Your task to perform on an android device: find which apps use the phone's location Image 0: 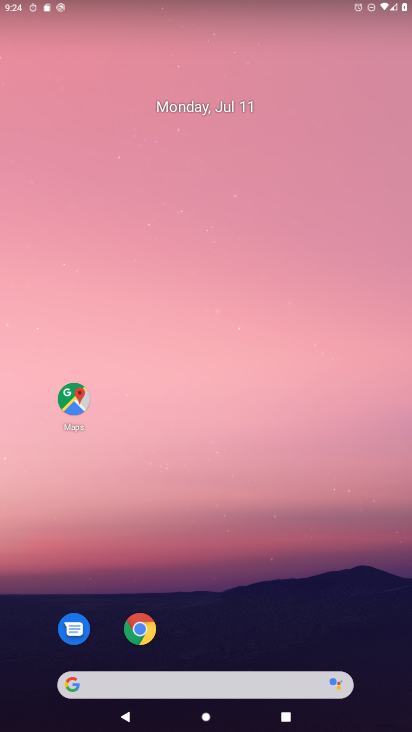
Step 0: drag from (213, 647) to (208, 189)
Your task to perform on an android device: find which apps use the phone's location Image 1: 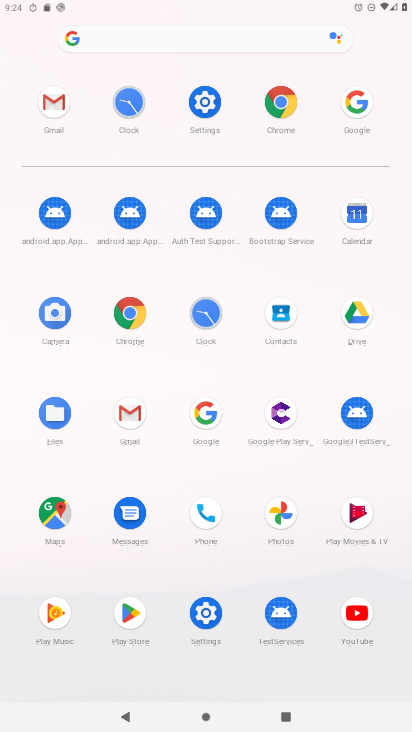
Step 1: click (198, 100)
Your task to perform on an android device: find which apps use the phone's location Image 2: 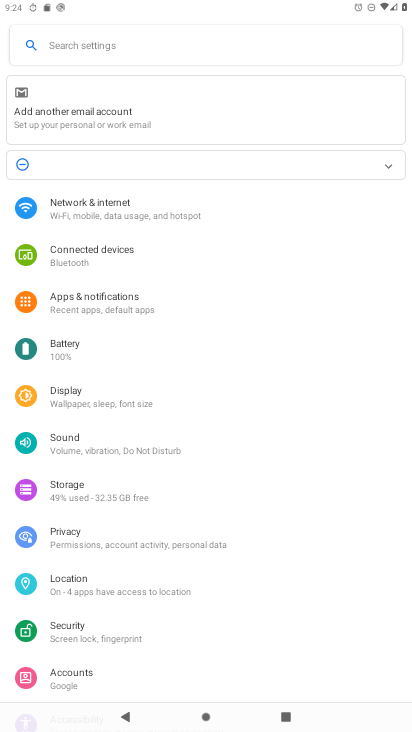
Step 2: click (59, 592)
Your task to perform on an android device: find which apps use the phone's location Image 3: 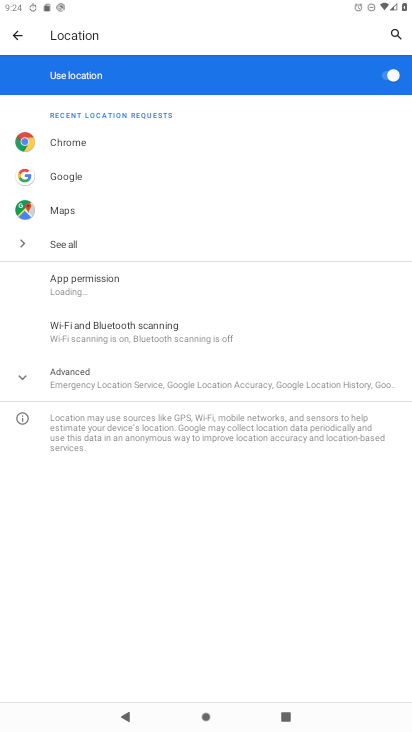
Step 3: click (102, 288)
Your task to perform on an android device: find which apps use the phone's location Image 4: 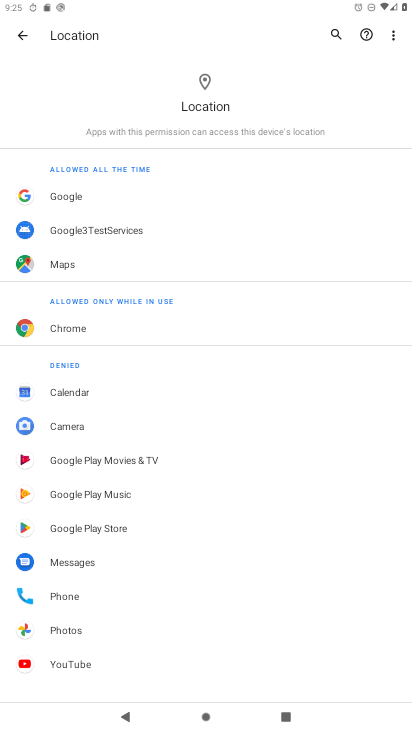
Step 4: task complete